Your task to perform on an android device: Open internet settings Image 0: 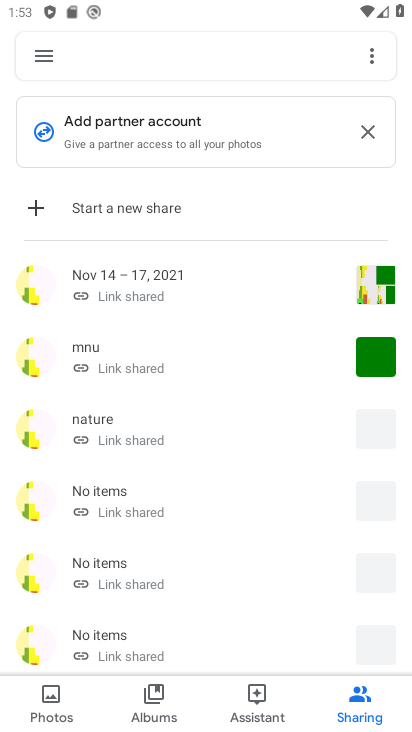
Step 0: press home button
Your task to perform on an android device: Open internet settings Image 1: 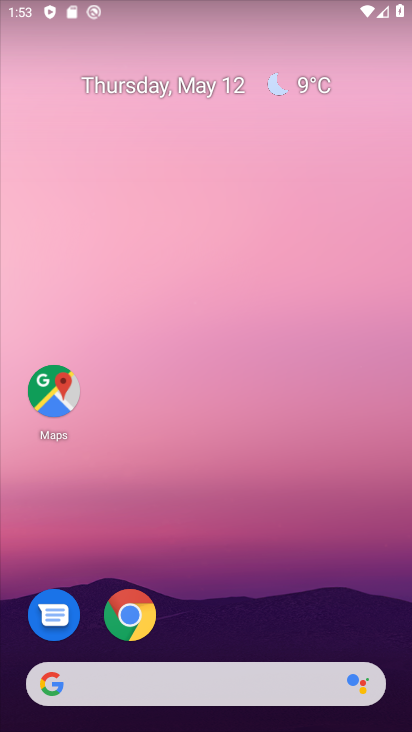
Step 1: drag from (188, 683) to (260, 14)
Your task to perform on an android device: Open internet settings Image 2: 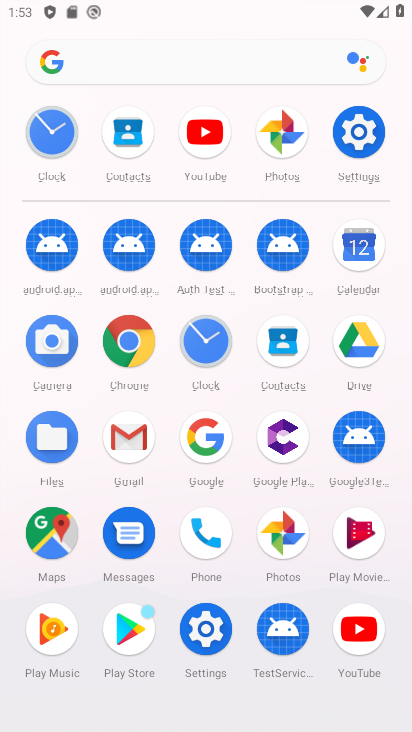
Step 2: click (342, 143)
Your task to perform on an android device: Open internet settings Image 3: 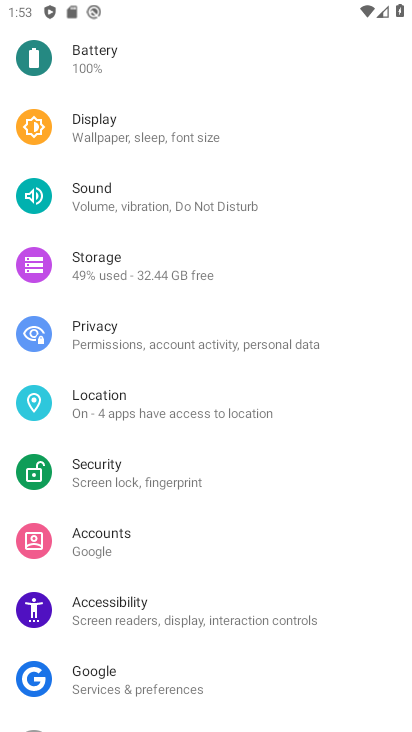
Step 3: drag from (193, 139) to (214, 564)
Your task to perform on an android device: Open internet settings Image 4: 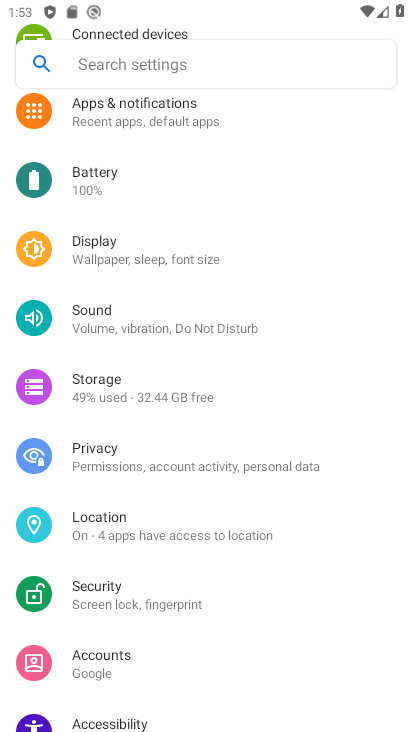
Step 4: drag from (206, 265) to (352, 616)
Your task to perform on an android device: Open internet settings Image 5: 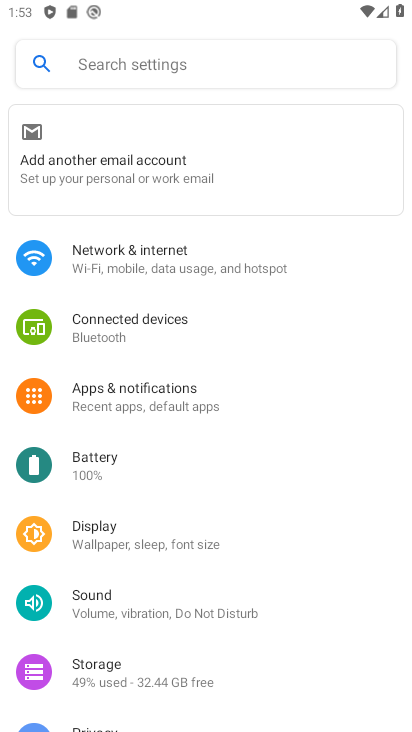
Step 5: click (177, 264)
Your task to perform on an android device: Open internet settings Image 6: 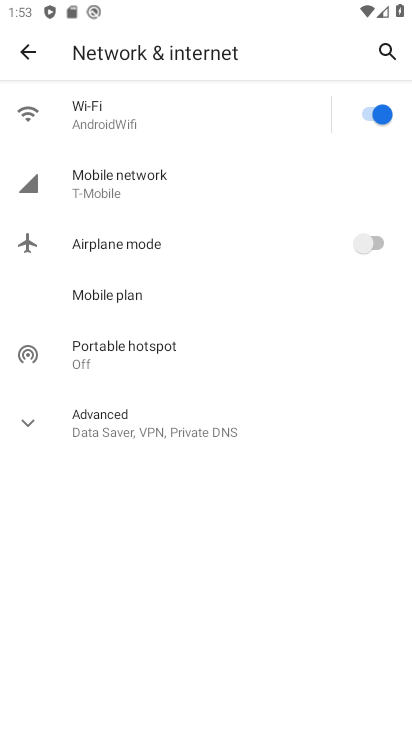
Step 6: task complete